Your task to perform on an android device: see sites visited before in the chrome app Image 0: 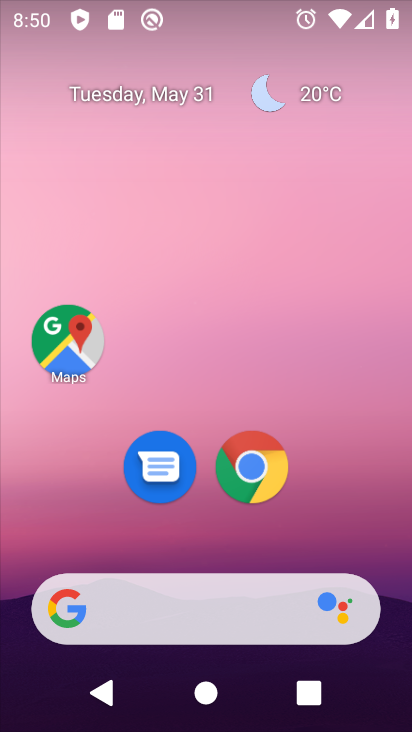
Step 0: drag from (209, 522) to (264, 163)
Your task to perform on an android device: see sites visited before in the chrome app Image 1: 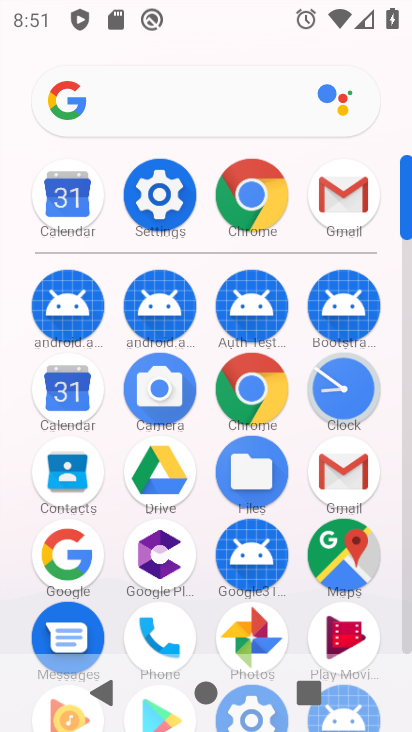
Step 1: click (244, 181)
Your task to perform on an android device: see sites visited before in the chrome app Image 2: 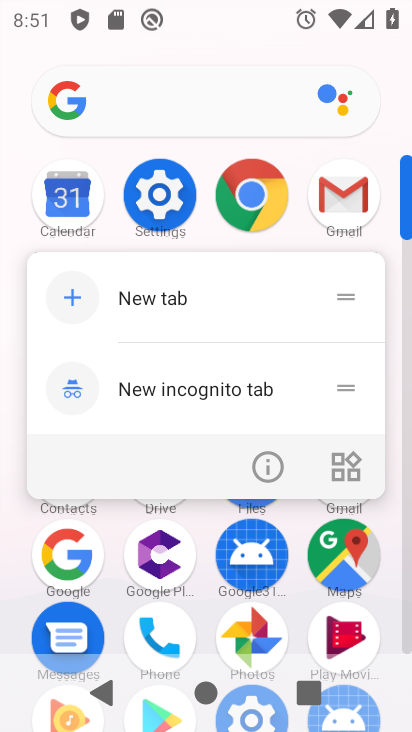
Step 2: click (269, 469)
Your task to perform on an android device: see sites visited before in the chrome app Image 3: 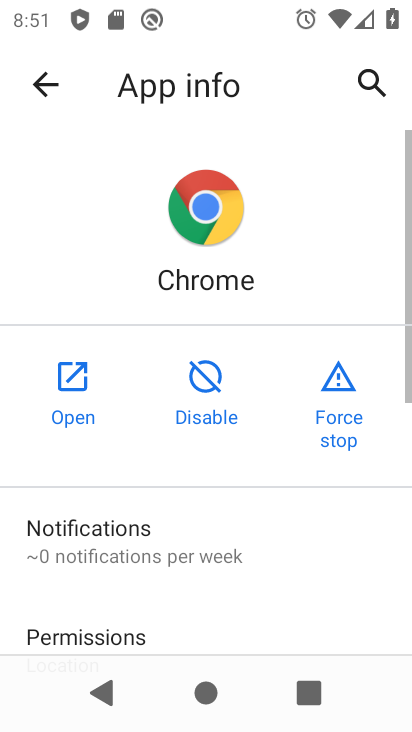
Step 3: click (74, 347)
Your task to perform on an android device: see sites visited before in the chrome app Image 4: 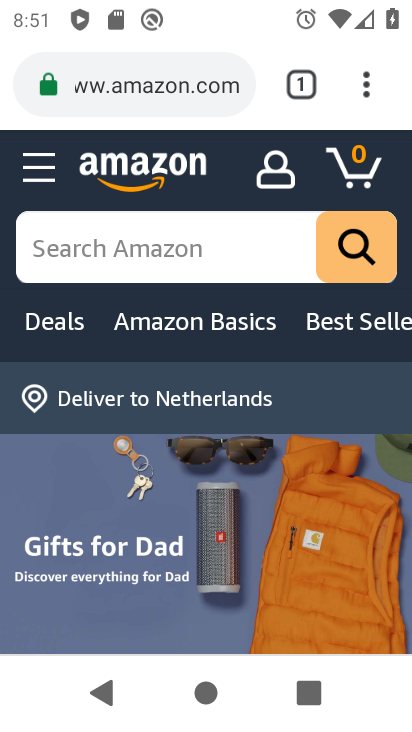
Step 4: drag from (183, 511) to (254, 66)
Your task to perform on an android device: see sites visited before in the chrome app Image 5: 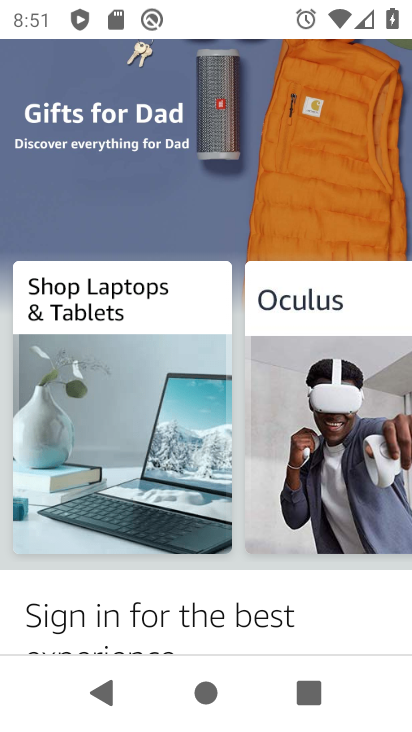
Step 5: drag from (219, 166) to (272, 513)
Your task to perform on an android device: see sites visited before in the chrome app Image 6: 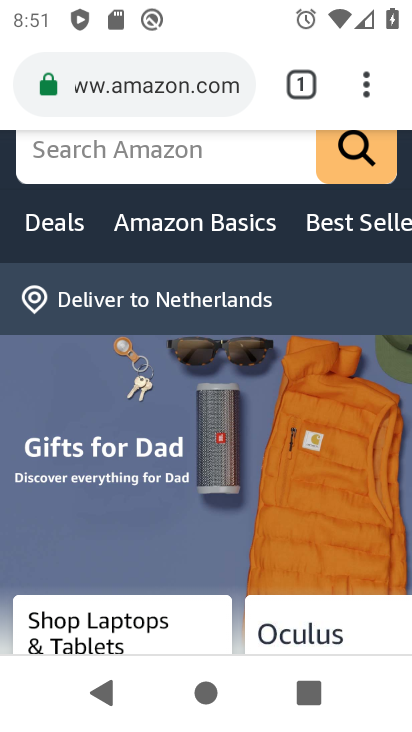
Step 6: drag from (253, 362) to (278, 174)
Your task to perform on an android device: see sites visited before in the chrome app Image 7: 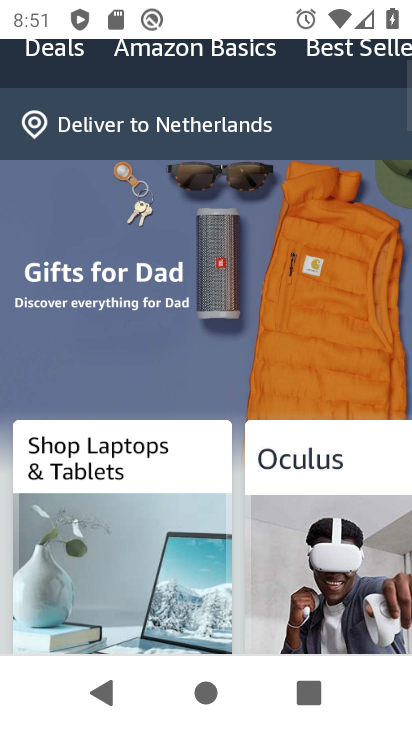
Step 7: drag from (224, 283) to (329, 714)
Your task to perform on an android device: see sites visited before in the chrome app Image 8: 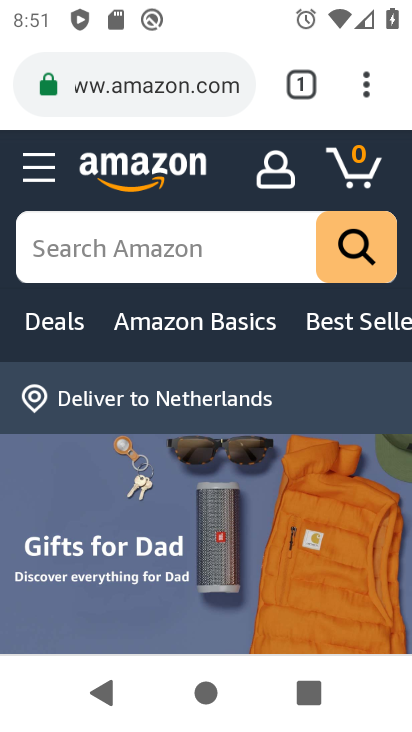
Step 8: drag from (234, 523) to (279, 280)
Your task to perform on an android device: see sites visited before in the chrome app Image 9: 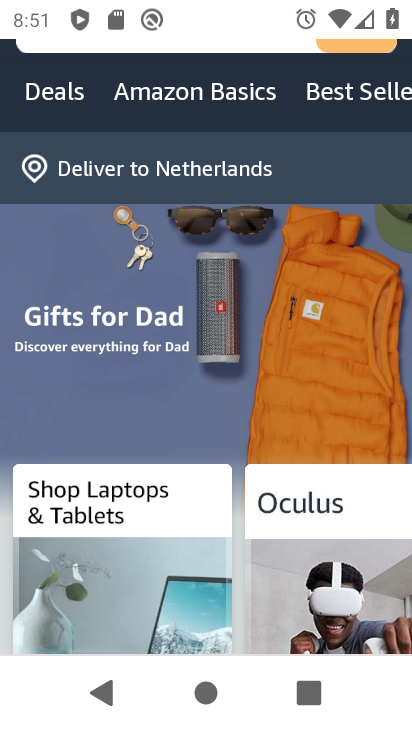
Step 9: drag from (325, 127) to (351, 474)
Your task to perform on an android device: see sites visited before in the chrome app Image 10: 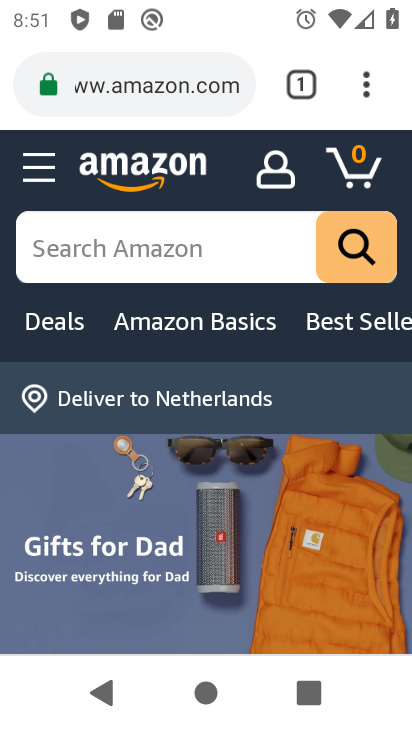
Step 10: drag from (381, 75) to (171, 324)
Your task to perform on an android device: see sites visited before in the chrome app Image 11: 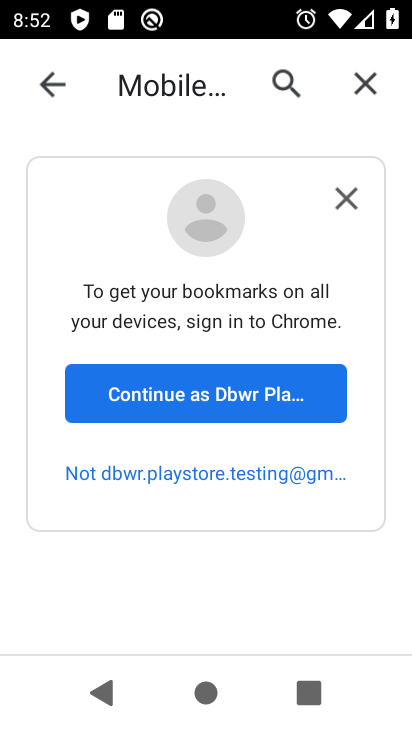
Step 11: drag from (276, 598) to (387, 251)
Your task to perform on an android device: see sites visited before in the chrome app Image 12: 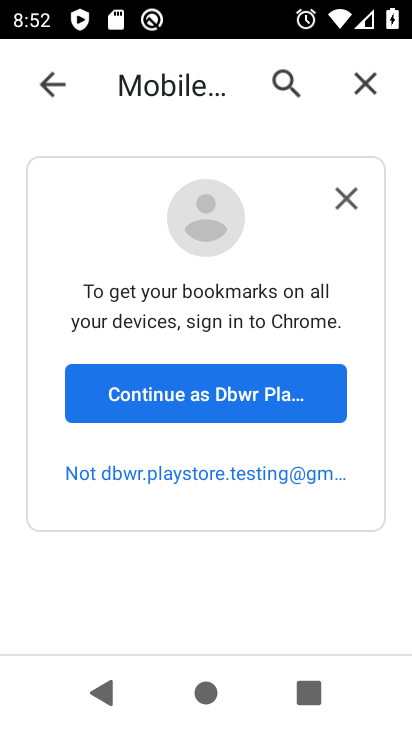
Step 12: click (345, 197)
Your task to perform on an android device: see sites visited before in the chrome app Image 13: 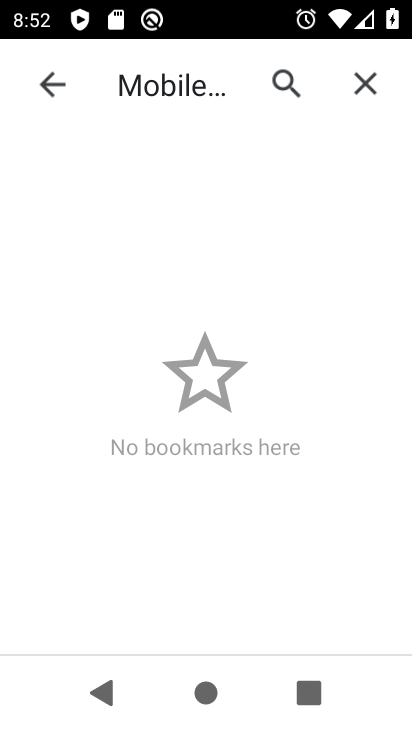
Step 13: task complete